Your task to perform on an android device: see sites visited before in the chrome app Image 0: 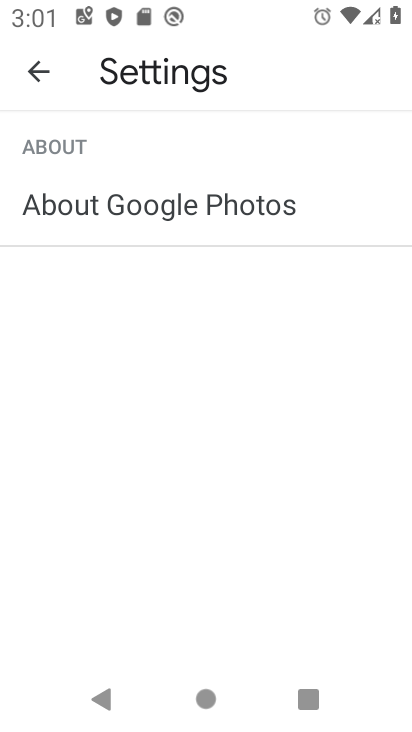
Step 0: press home button
Your task to perform on an android device: see sites visited before in the chrome app Image 1: 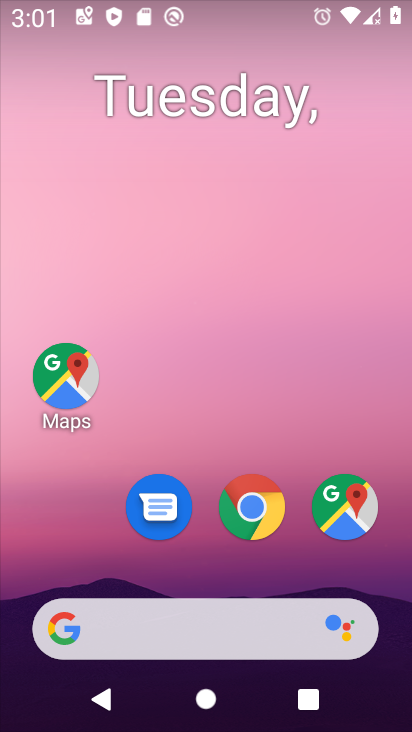
Step 1: click (248, 482)
Your task to perform on an android device: see sites visited before in the chrome app Image 2: 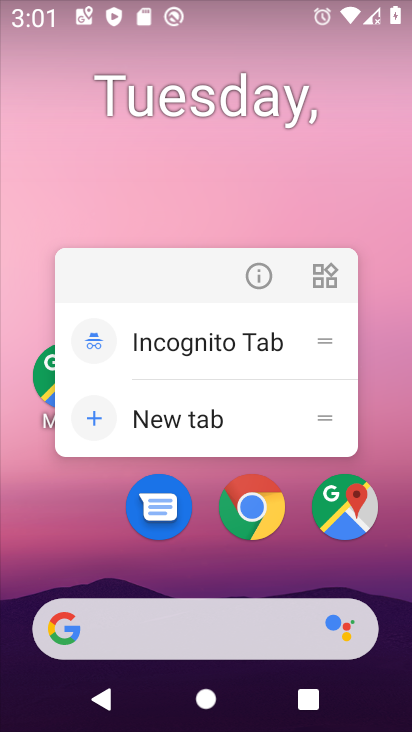
Step 2: click (247, 509)
Your task to perform on an android device: see sites visited before in the chrome app Image 3: 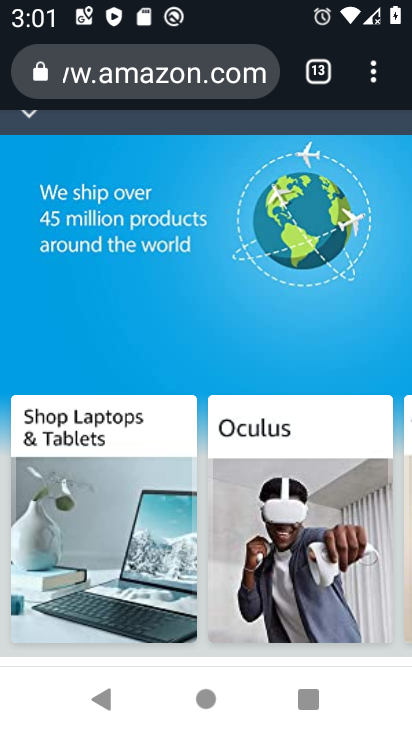
Step 3: click (365, 74)
Your task to perform on an android device: see sites visited before in the chrome app Image 4: 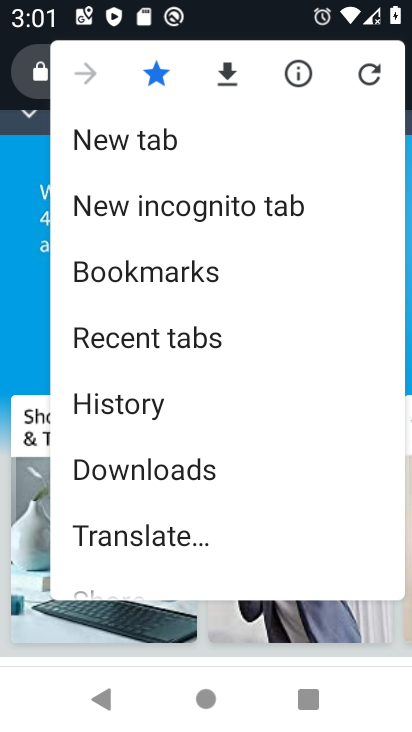
Step 4: click (146, 402)
Your task to perform on an android device: see sites visited before in the chrome app Image 5: 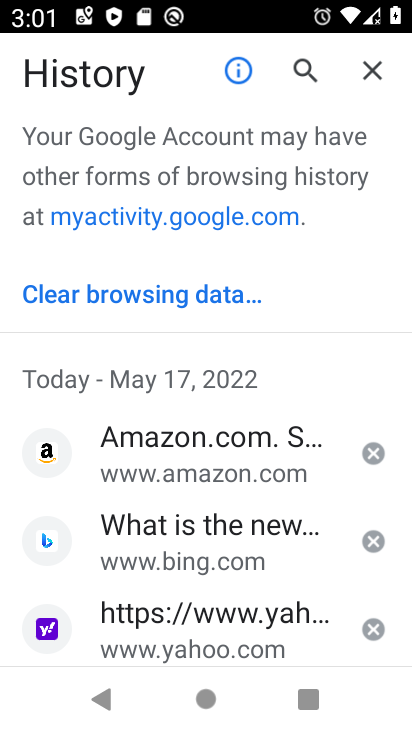
Step 5: task complete